Your task to perform on an android device: Open the Play Movies app and select the watchlist tab. Image 0: 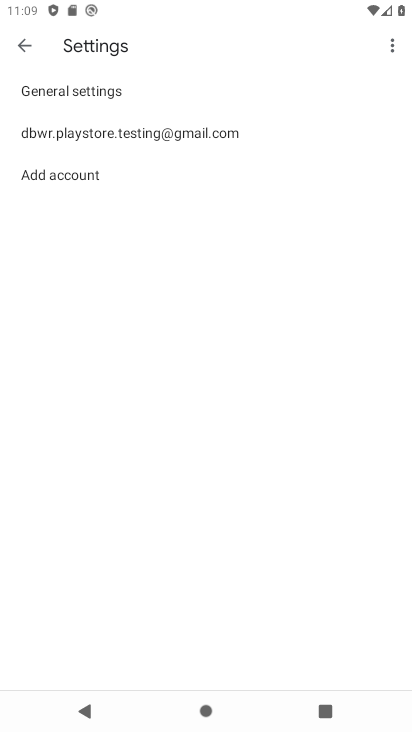
Step 0: press home button
Your task to perform on an android device: Open the Play Movies app and select the watchlist tab. Image 1: 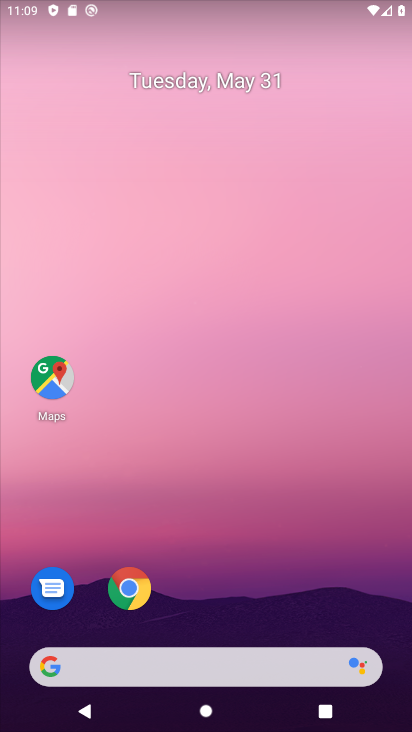
Step 1: drag from (283, 624) to (320, 242)
Your task to perform on an android device: Open the Play Movies app and select the watchlist tab. Image 2: 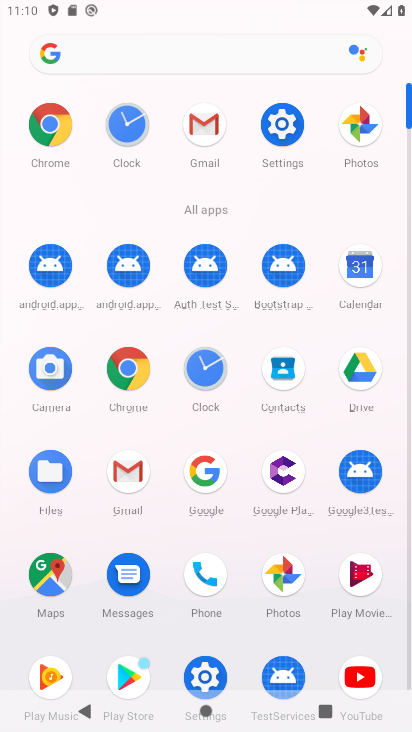
Step 2: click (359, 586)
Your task to perform on an android device: Open the Play Movies app and select the watchlist tab. Image 3: 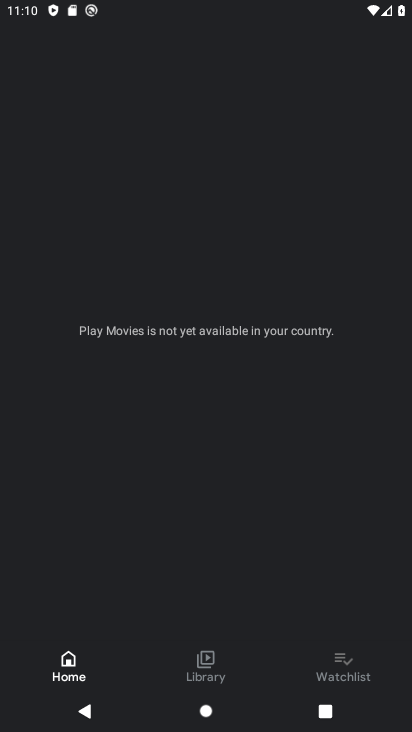
Step 3: drag from (354, 672) to (280, 671)
Your task to perform on an android device: Open the Play Movies app and select the watchlist tab. Image 4: 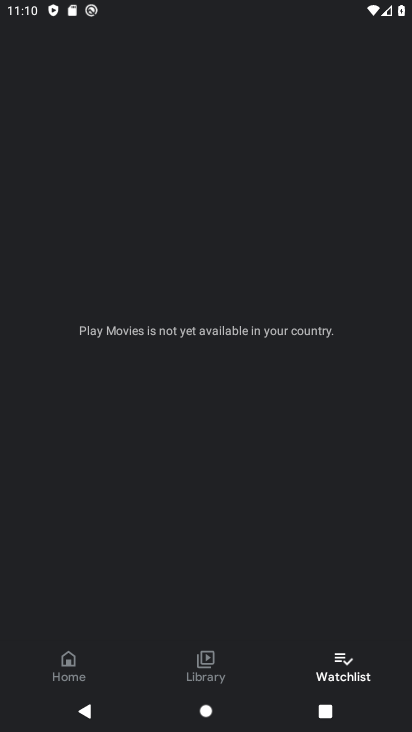
Step 4: click (346, 663)
Your task to perform on an android device: Open the Play Movies app and select the watchlist tab. Image 5: 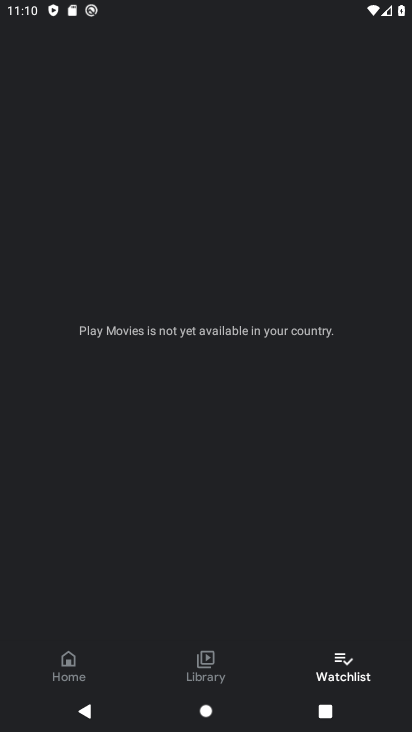
Step 5: task complete